Your task to perform on an android device: Go to ESPN.com Image 0: 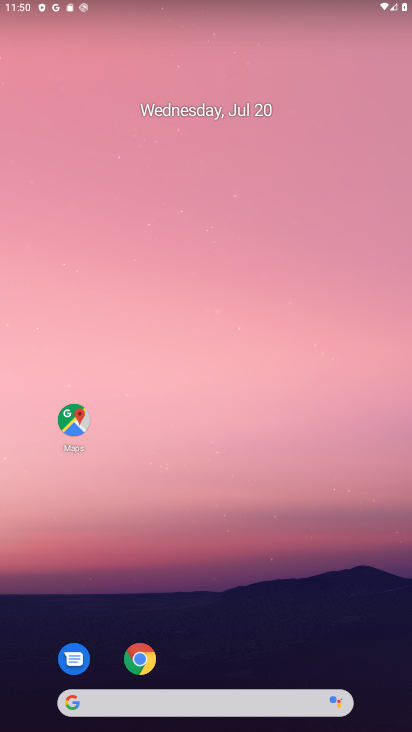
Step 0: click (133, 663)
Your task to perform on an android device: Go to ESPN.com Image 1: 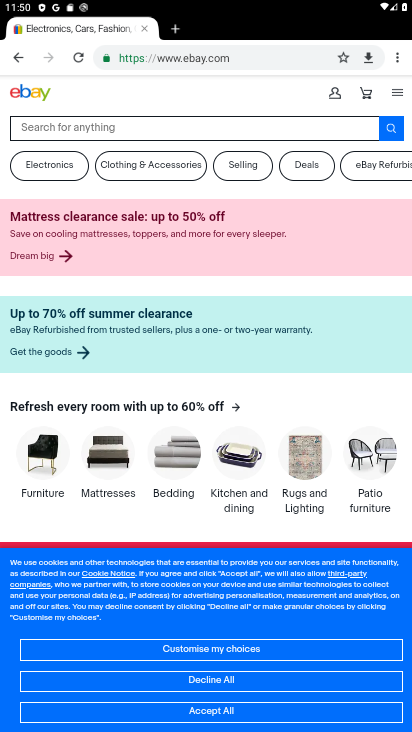
Step 1: click (175, 30)
Your task to perform on an android device: Go to ESPN.com Image 2: 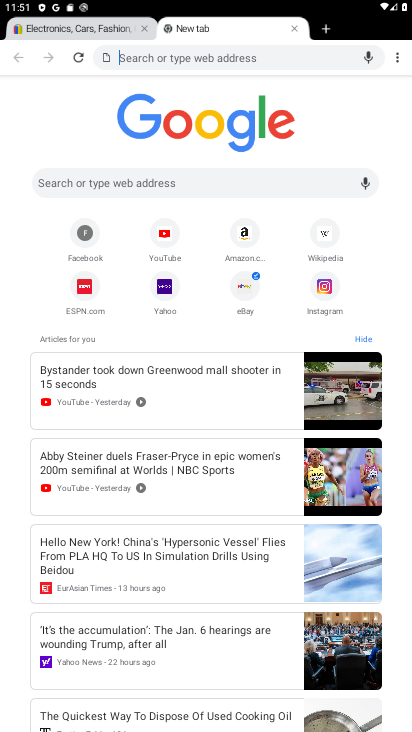
Step 2: task complete